Your task to perform on an android device: open the mobile data screen to see how much data has been used Image 0: 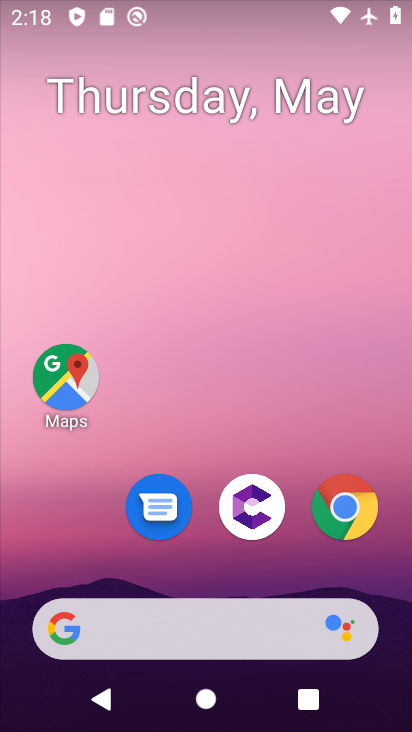
Step 0: press home button
Your task to perform on an android device: open the mobile data screen to see how much data has been used Image 1: 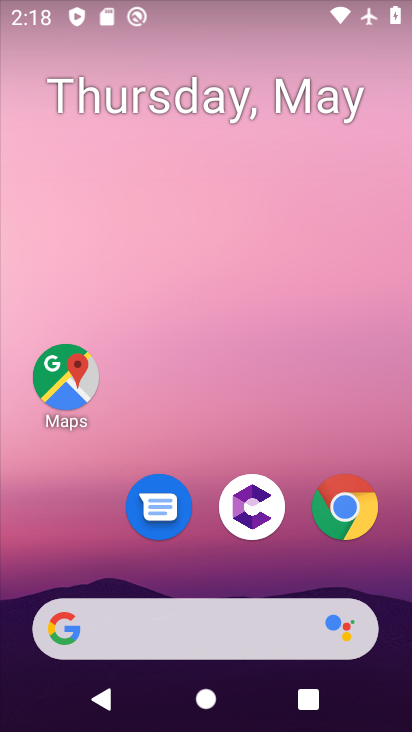
Step 1: drag from (183, 564) to (227, 127)
Your task to perform on an android device: open the mobile data screen to see how much data has been used Image 2: 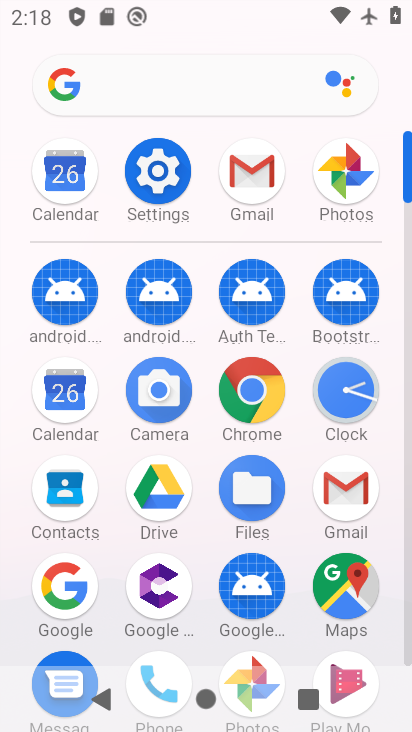
Step 2: click (172, 183)
Your task to perform on an android device: open the mobile data screen to see how much data has been used Image 3: 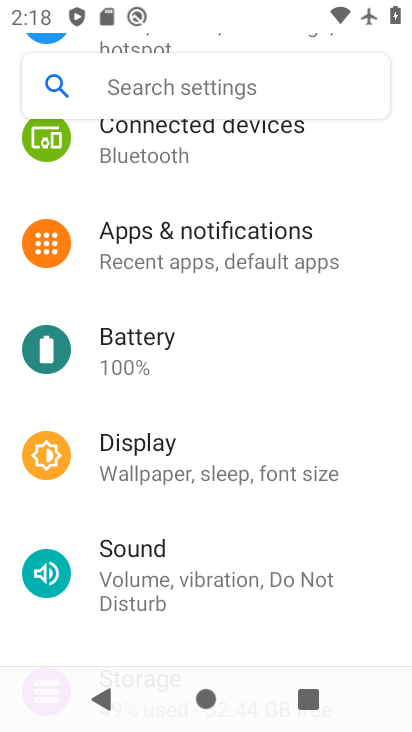
Step 3: drag from (172, 178) to (168, 504)
Your task to perform on an android device: open the mobile data screen to see how much data has been used Image 4: 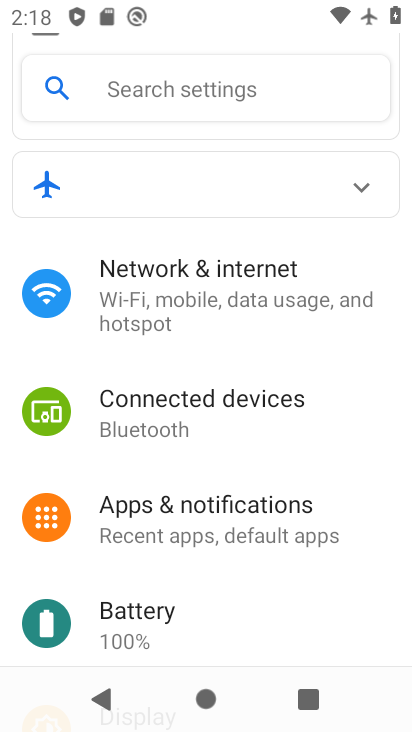
Step 4: click (161, 311)
Your task to perform on an android device: open the mobile data screen to see how much data has been used Image 5: 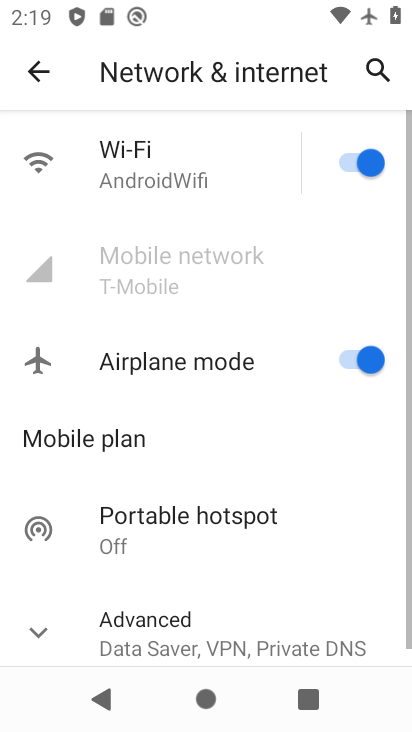
Step 5: click (164, 269)
Your task to perform on an android device: open the mobile data screen to see how much data has been used Image 6: 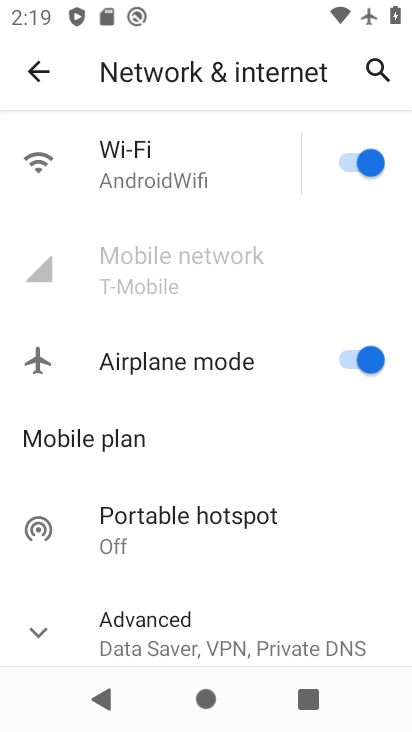
Step 6: click (165, 269)
Your task to perform on an android device: open the mobile data screen to see how much data has been used Image 7: 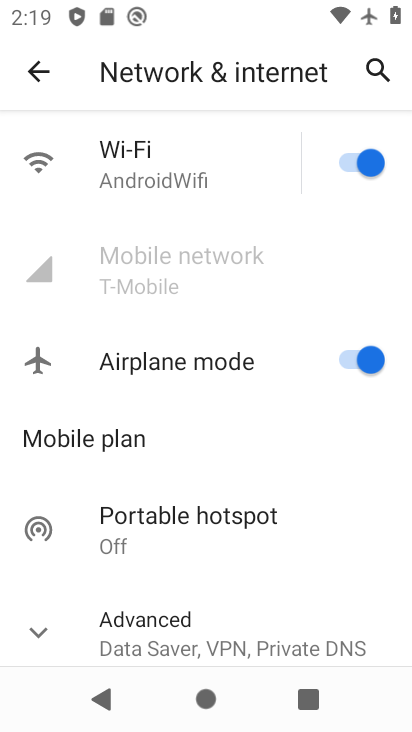
Step 7: click (169, 247)
Your task to perform on an android device: open the mobile data screen to see how much data has been used Image 8: 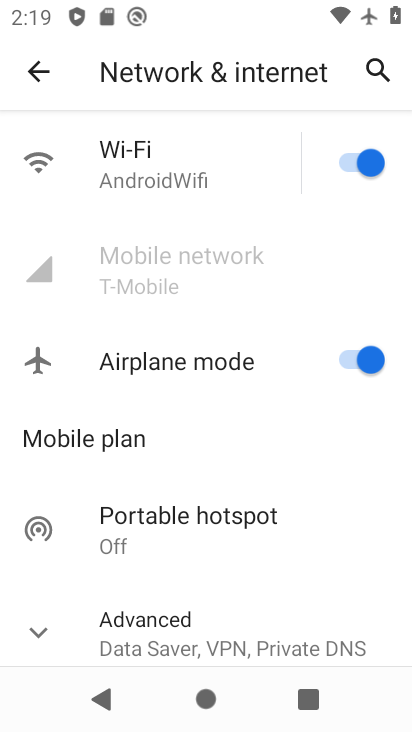
Step 8: click (163, 264)
Your task to perform on an android device: open the mobile data screen to see how much data has been used Image 9: 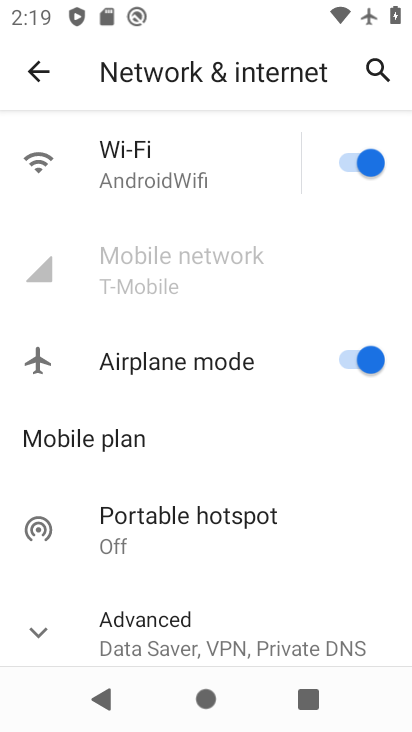
Step 9: drag from (224, 8) to (256, 349)
Your task to perform on an android device: open the mobile data screen to see how much data has been used Image 10: 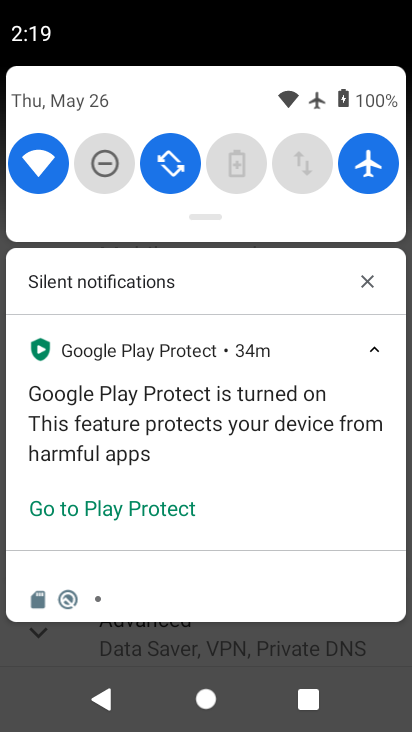
Step 10: click (363, 163)
Your task to perform on an android device: open the mobile data screen to see how much data has been used Image 11: 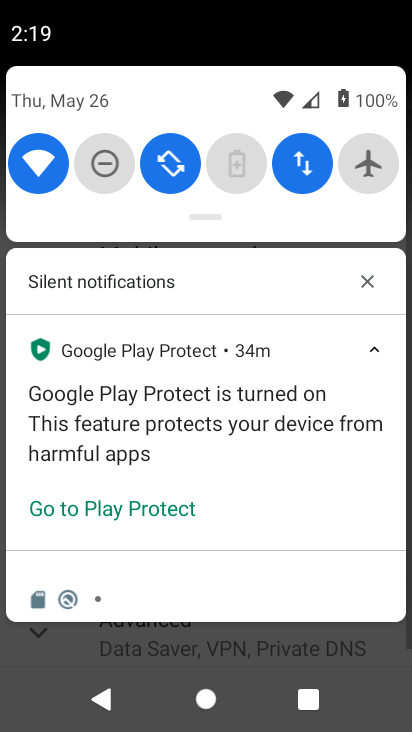
Step 11: drag from (248, 548) to (390, 314)
Your task to perform on an android device: open the mobile data screen to see how much data has been used Image 12: 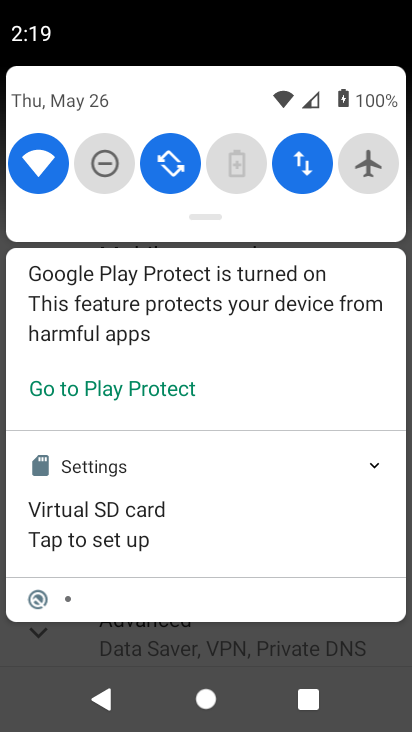
Step 12: drag from (209, 617) to (196, 44)
Your task to perform on an android device: open the mobile data screen to see how much data has been used Image 13: 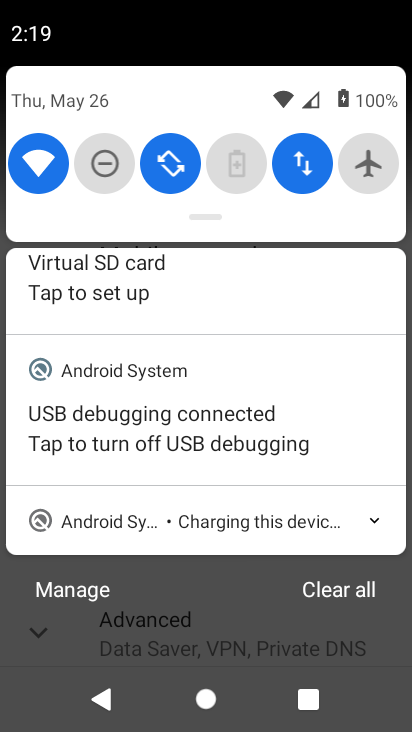
Step 13: drag from (179, 596) to (219, 101)
Your task to perform on an android device: open the mobile data screen to see how much data has been used Image 14: 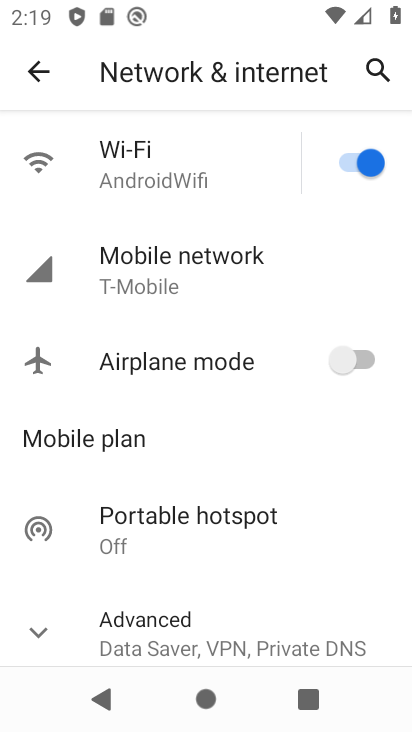
Step 14: click (161, 261)
Your task to perform on an android device: open the mobile data screen to see how much data has been used Image 15: 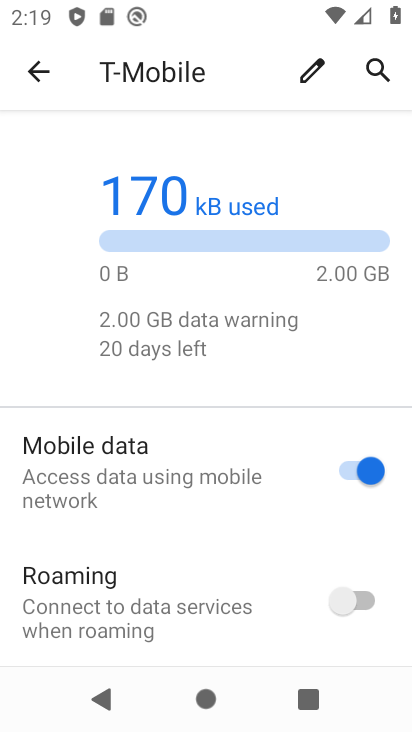
Step 15: drag from (238, 639) to (256, 384)
Your task to perform on an android device: open the mobile data screen to see how much data has been used Image 16: 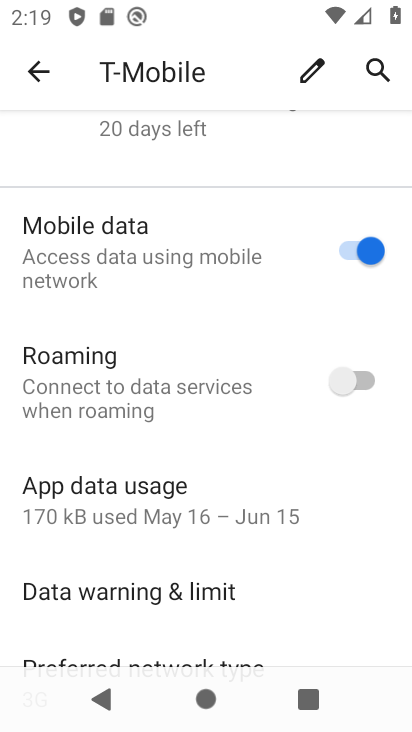
Step 16: click (90, 496)
Your task to perform on an android device: open the mobile data screen to see how much data has been used Image 17: 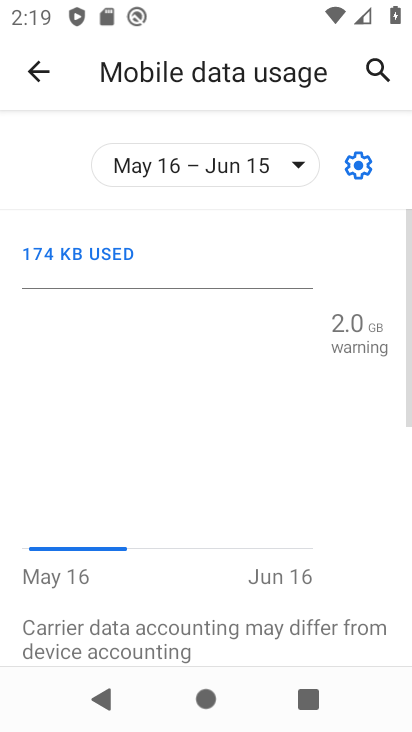
Step 17: task complete